Your task to perform on an android device: search for starred emails in the gmail app Image 0: 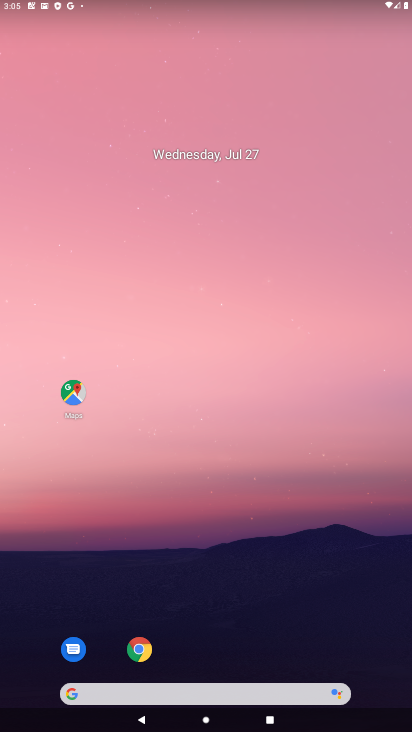
Step 0: drag from (256, 687) to (316, 178)
Your task to perform on an android device: search for starred emails in the gmail app Image 1: 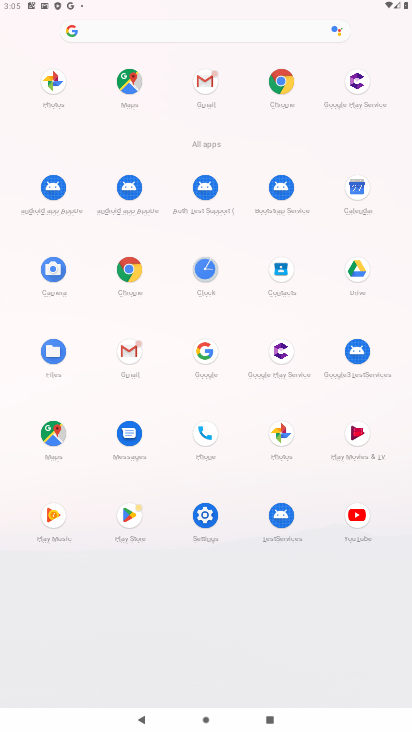
Step 1: click (125, 355)
Your task to perform on an android device: search for starred emails in the gmail app Image 2: 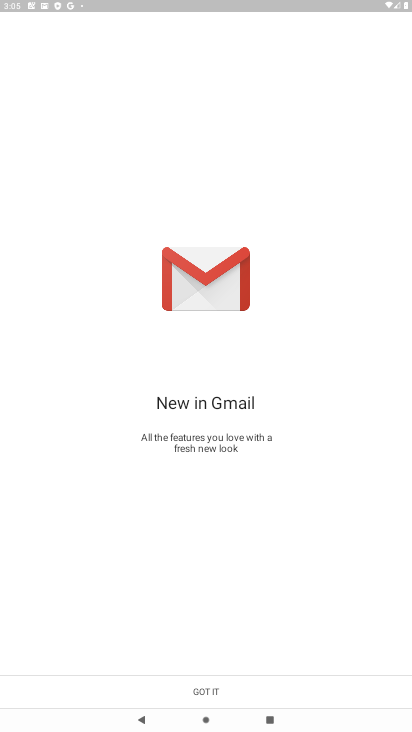
Step 2: click (204, 685)
Your task to perform on an android device: search for starred emails in the gmail app Image 3: 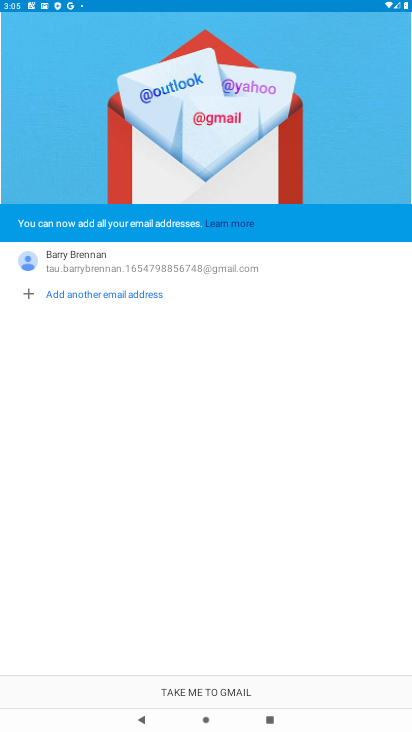
Step 3: click (204, 687)
Your task to perform on an android device: search for starred emails in the gmail app Image 4: 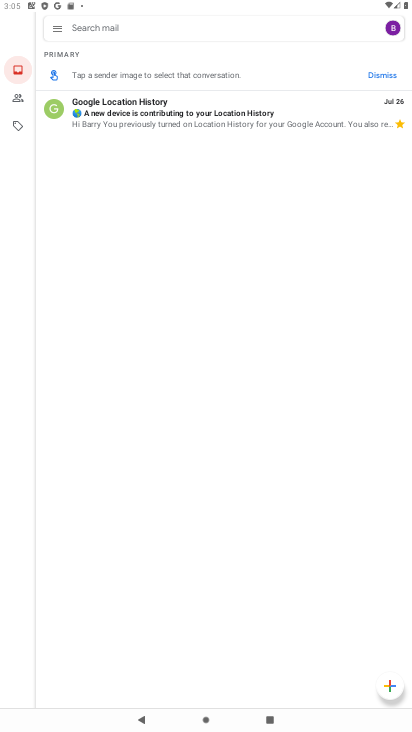
Step 4: click (55, 31)
Your task to perform on an android device: search for starred emails in the gmail app Image 5: 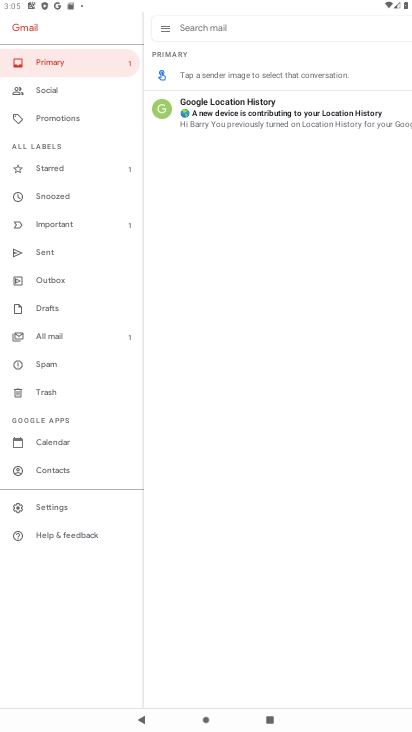
Step 5: click (49, 167)
Your task to perform on an android device: search for starred emails in the gmail app Image 6: 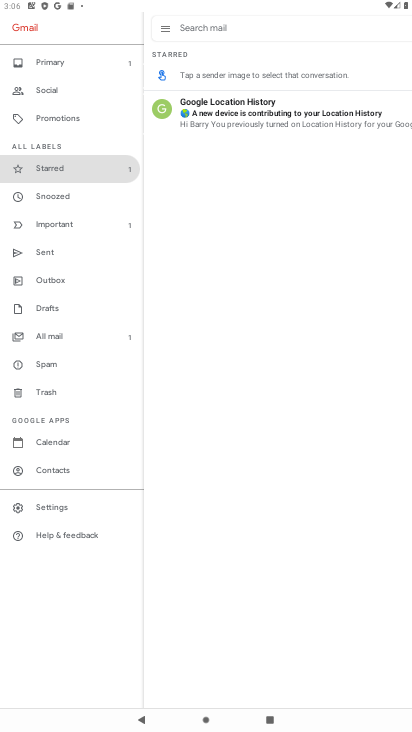
Step 6: task complete